Your task to perform on an android device: check battery use Image 0: 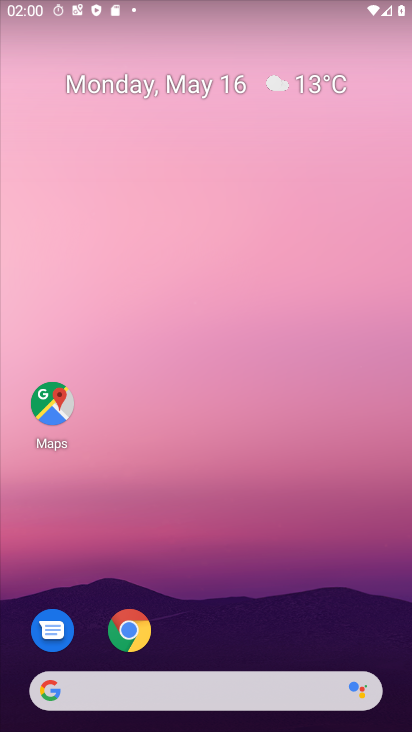
Step 0: drag from (352, 625) to (295, 157)
Your task to perform on an android device: check battery use Image 1: 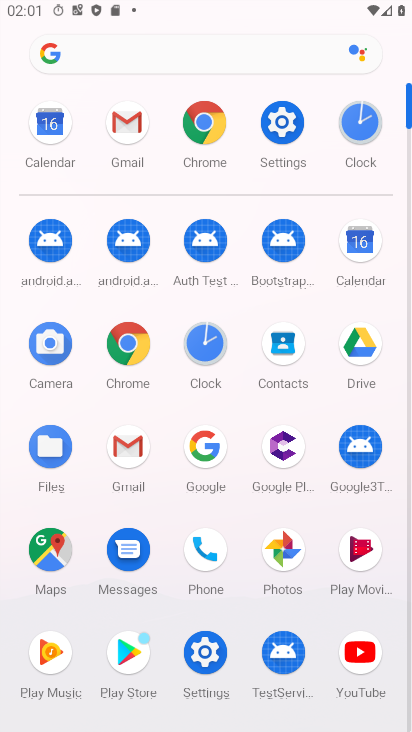
Step 1: click (281, 131)
Your task to perform on an android device: check battery use Image 2: 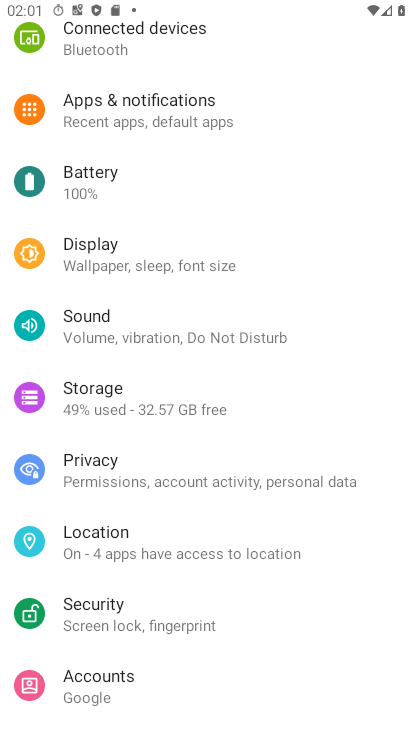
Step 2: drag from (234, 669) to (283, 365)
Your task to perform on an android device: check battery use Image 3: 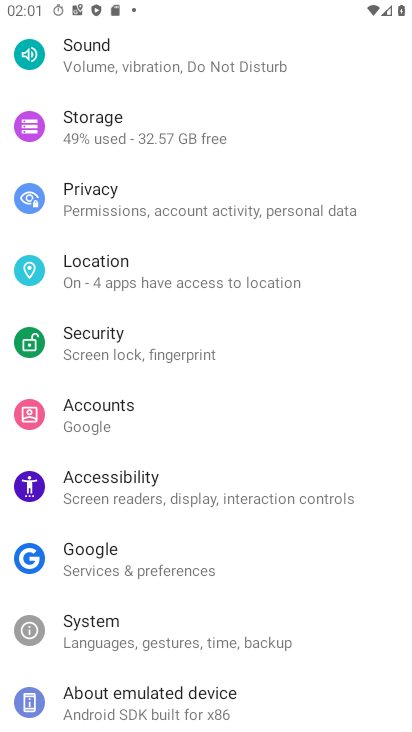
Step 3: drag from (133, 132) to (205, 429)
Your task to perform on an android device: check battery use Image 4: 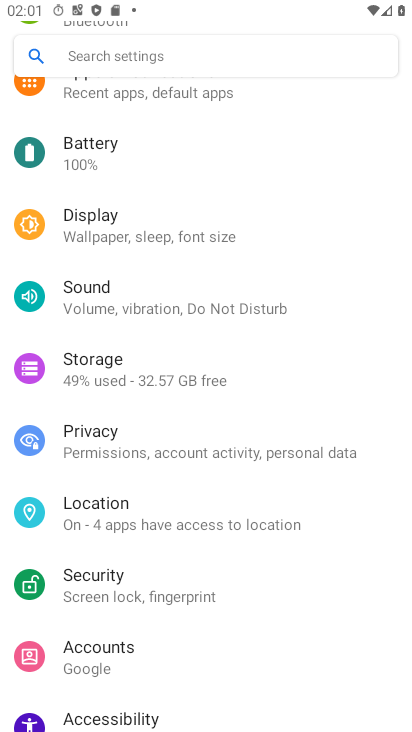
Step 4: click (148, 166)
Your task to perform on an android device: check battery use Image 5: 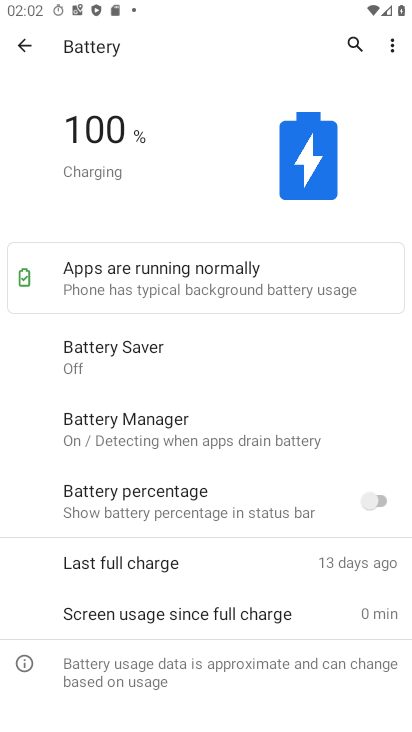
Step 5: task complete